Your task to perform on an android device: Show me popular games on the Play Store Image 0: 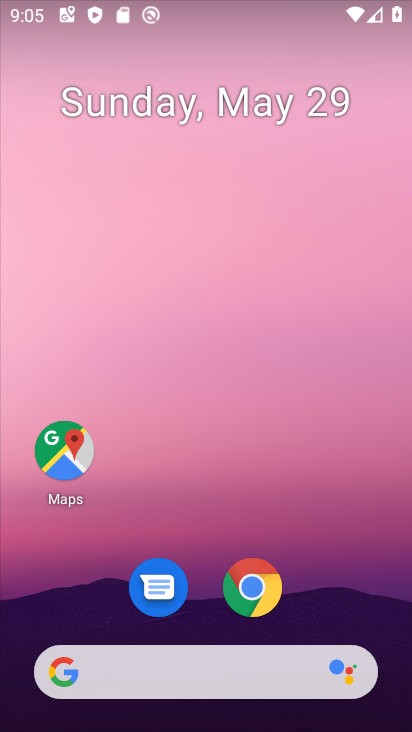
Step 0: drag from (196, 544) to (247, 32)
Your task to perform on an android device: Show me popular games on the Play Store Image 1: 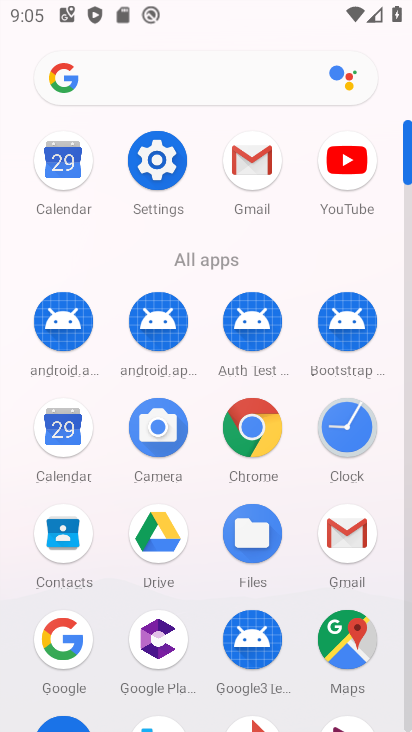
Step 1: drag from (227, 605) to (284, 216)
Your task to perform on an android device: Show me popular games on the Play Store Image 2: 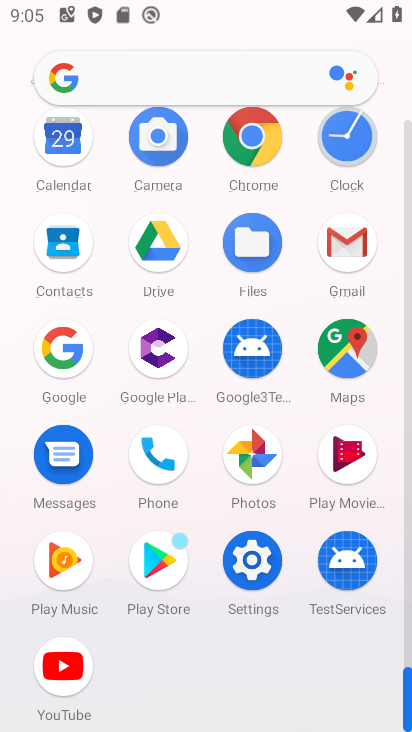
Step 2: click (159, 560)
Your task to perform on an android device: Show me popular games on the Play Store Image 3: 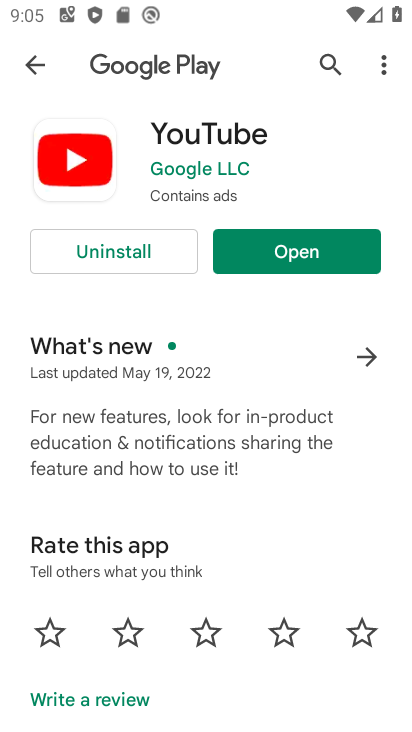
Step 3: click (39, 67)
Your task to perform on an android device: Show me popular games on the Play Store Image 4: 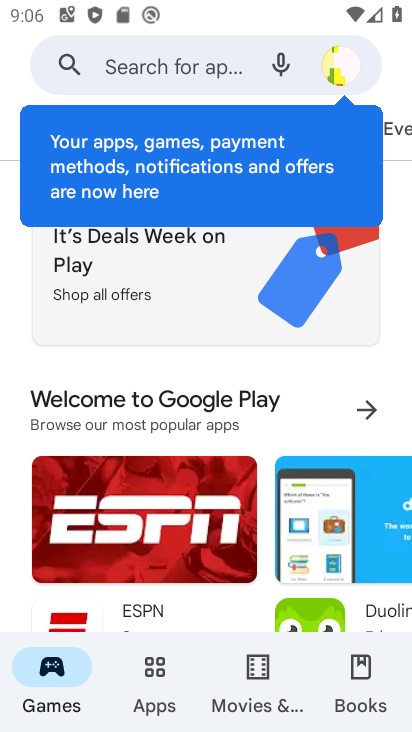
Step 4: drag from (197, 520) to (256, 183)
Your task to perform on an android device: Show me popular games on the Play Store Image 5: 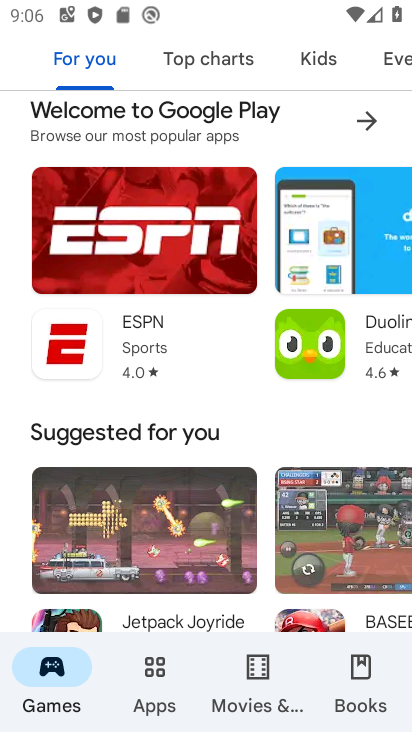
Step 5: drag from (225, 556) to (278, 141)
Your task to perform on an android device: Show me popular games on the Play Store Image 6: 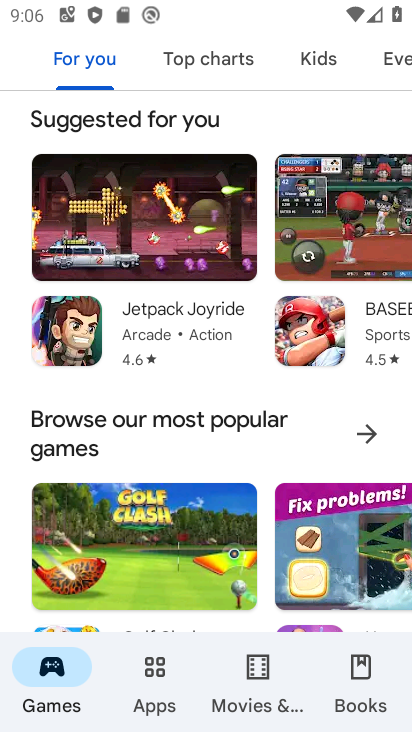
Step 6: click (367, 432)
Your task to perform on an android device: Show me popular games on the Play Store Image 7: 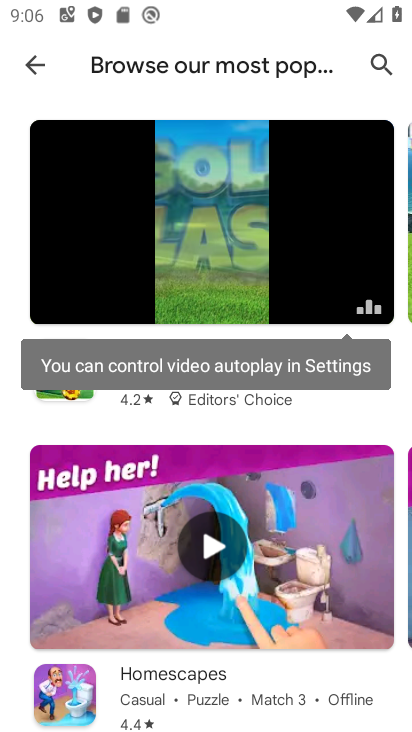
Step 7: task complete